Your task to perform on an android device: Open notification settings Image 0: 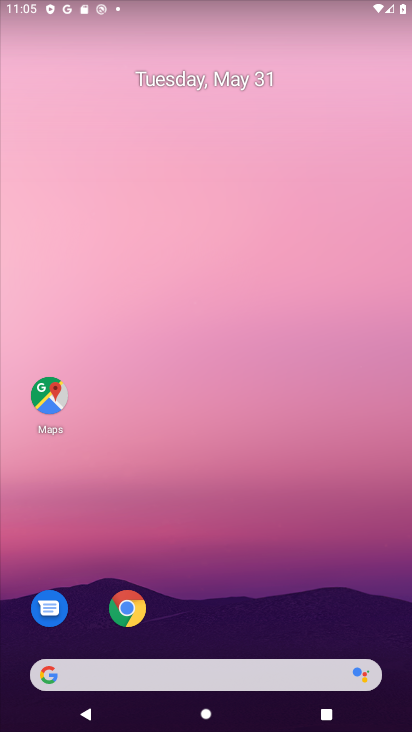
Step 0: drag from (264, 642) to (283, 100)
Your task to perform on an android device: Open notification settings Image 1: 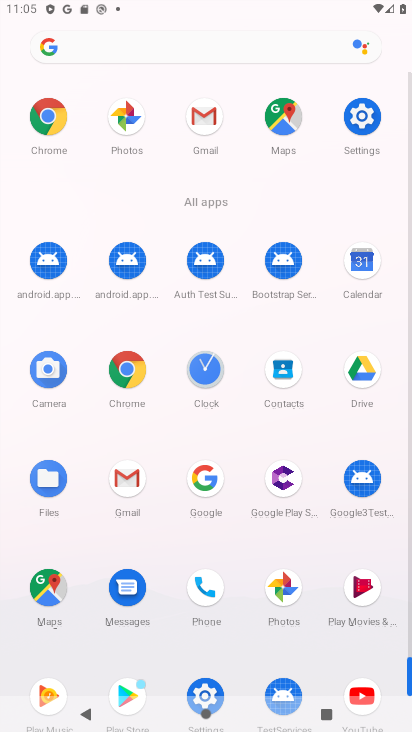
Step 1: click (351, 119)
Your task to perform on an android device: Open notification settings Image 2: 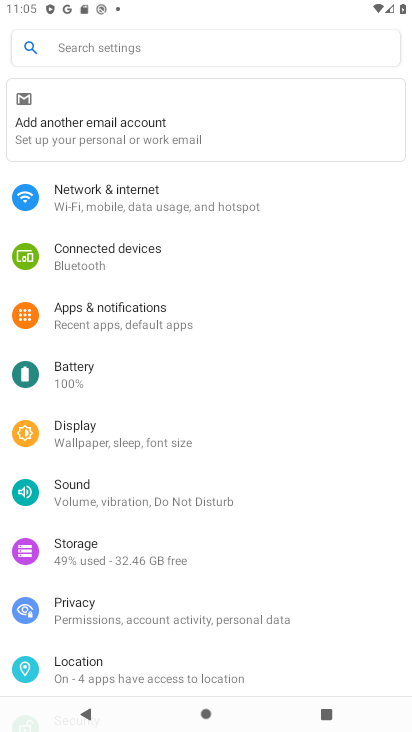
Step 2: click (129, 333)
Your task to perform on an android device: Open notification settings Image 3: 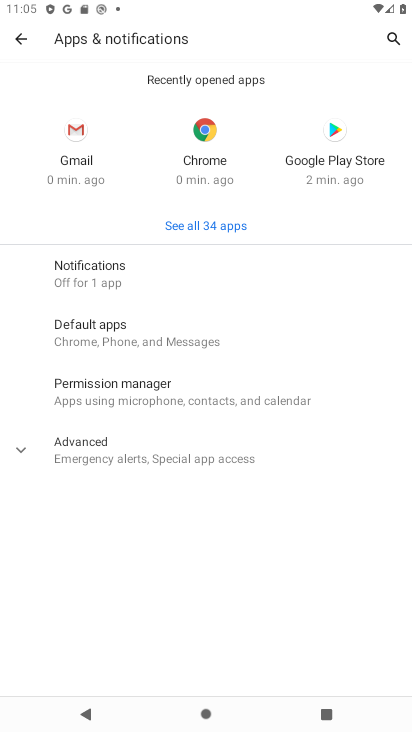
Step 3: task complete